Your task to perform on an android device: Show me productivity apps on the Play Store Image 0: 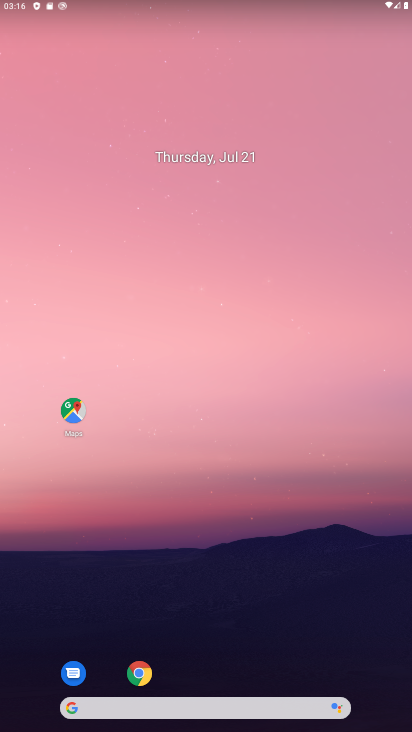
Step 0: drag from (306, 623) to (293, 152)
Your task to perform on an android device: Show me productivity apps on the Play Store Image 1: 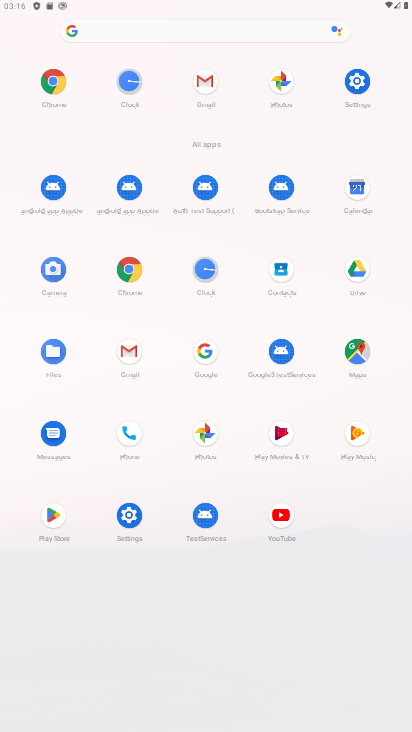
Step 1: click (52, 514)
Your task to perform on an android device: Show me productivity apps on the Play Store Image 2: 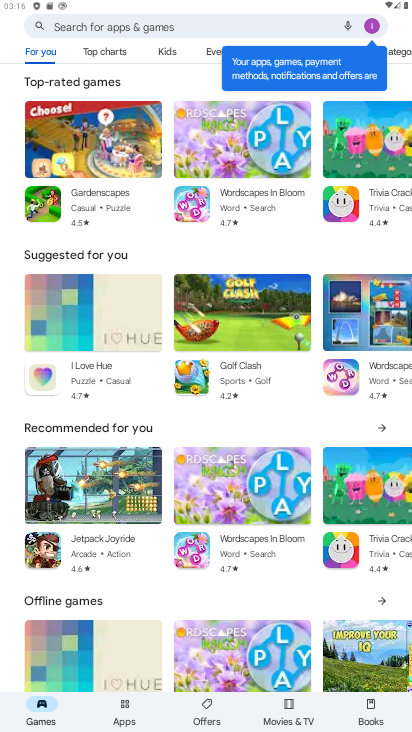
Step 2: click (375, 23)
Your task to perform on an android device: Show me productivity apps on the Play Store Image 3: 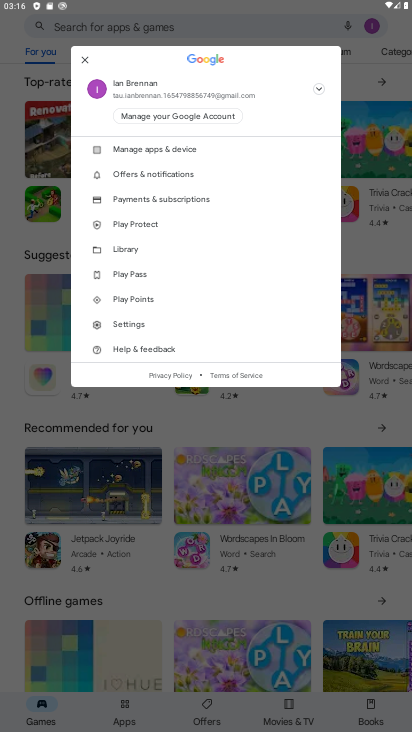
Step 3: click (332, 604)
Your task to perform on an android device: Show me productivity apps on the Play Store Image 4: 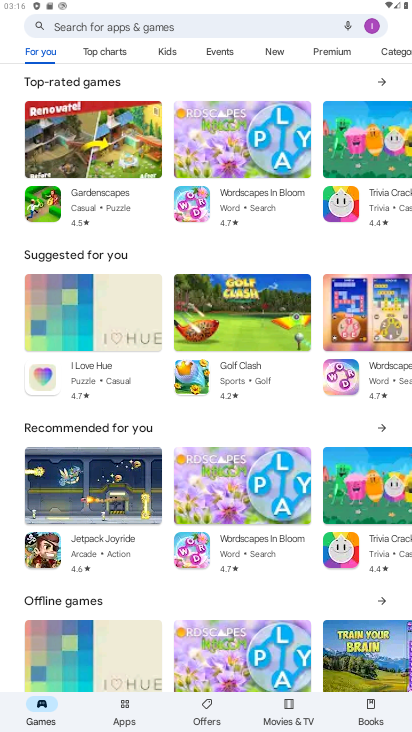
Step 4: click (116, 715)
Your task to perform on an android device: Show me productivity apps on the Play Store Image 5: 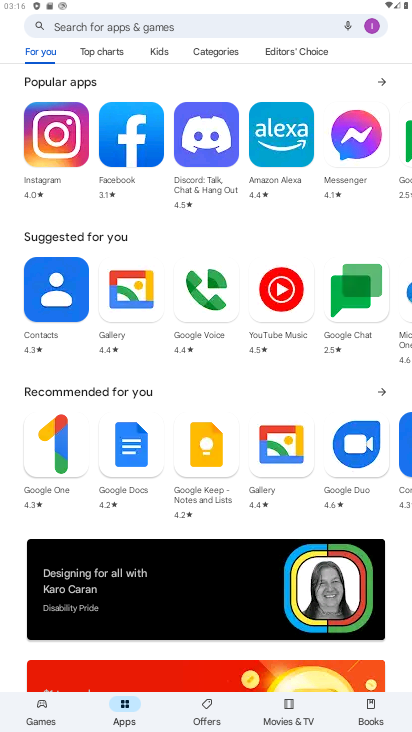
Step 5: task complete